Your task to perform on an android device: toggle pop-ups in chrome Image 0: 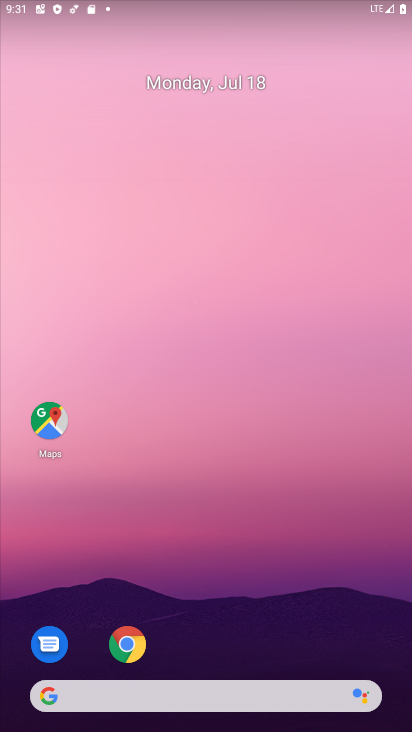
Step 0: drag from (202, 658) to (193, 72)
Your task to perform on an android device: toggle pop-ups in chrome Image 1: 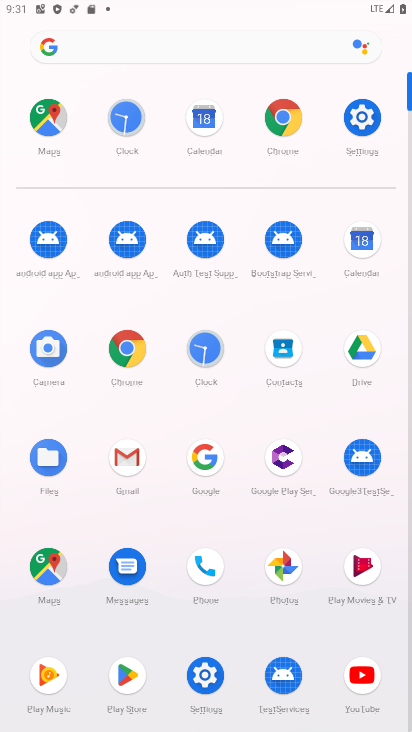
Step 1: click (148, 337)
Your task to perform on an android device: toggle pop-ups in chrome Image 2: 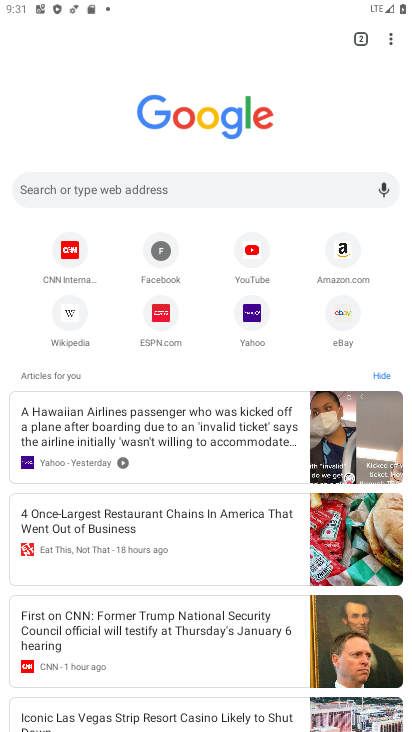
Step 2: drag from (392, 32) to (250, 327)
Your task to perform on an android device: toggle pop-ups in chrome Image 3: 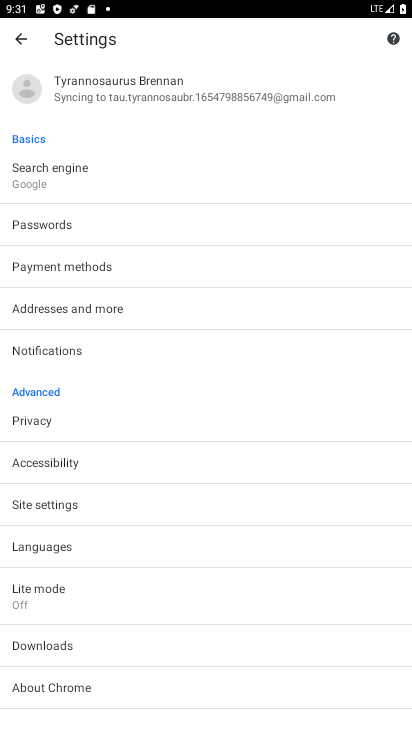
Step 3: click (38, 509)
Your task to perform on an android device: toggle pop-ups in chrome Image 4: 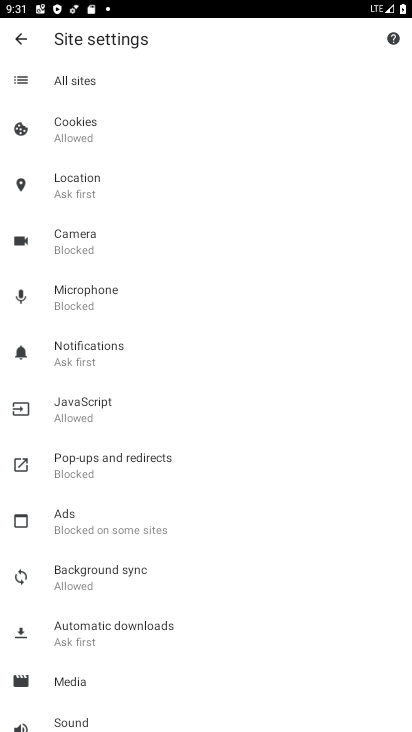
Step 4: click (96, 443)
Your task to perform on an android device: toggle pop-ups in chrome Image 5: 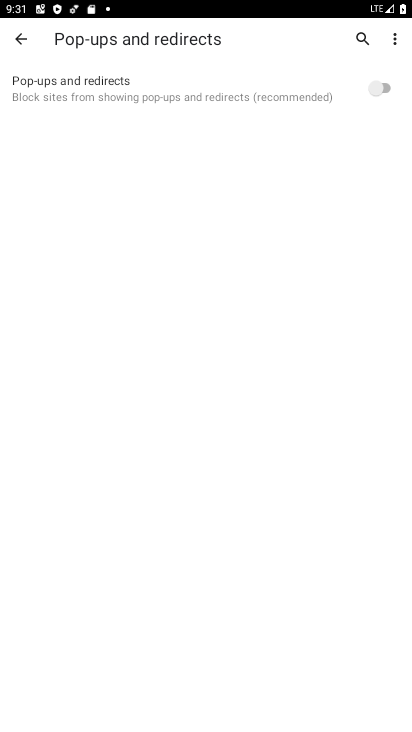
Step 5: click (387, 88)
Your task to perform on an android device: toggle pop-ups in chrome Image 6: 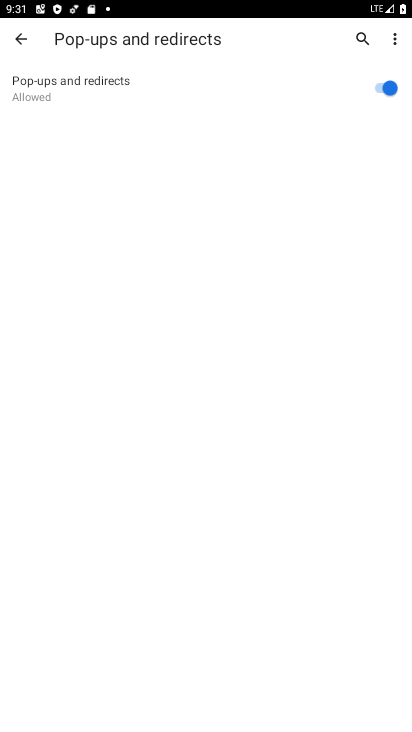
Step 6: task complete